Your task to perform on an android device: Show me popular games on the Play Store Image 0: 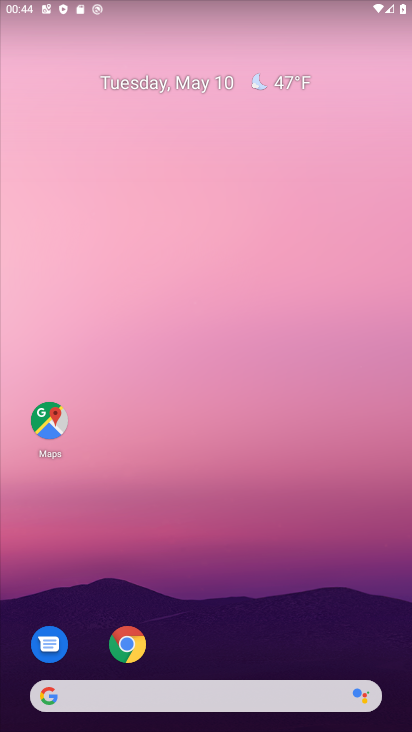
Step 0: drag from (254, 649) to (283, 329)
Your task to perform on an android device: Show me popular games on the Play Store Image 1: 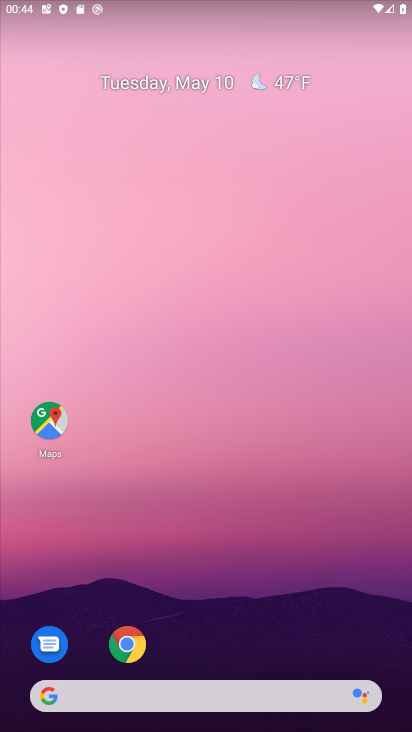
Step 1: drag from (183, 637) to (279, 286)
Your task to perform on an android device: Show me popular games on the Play Store Image 2: 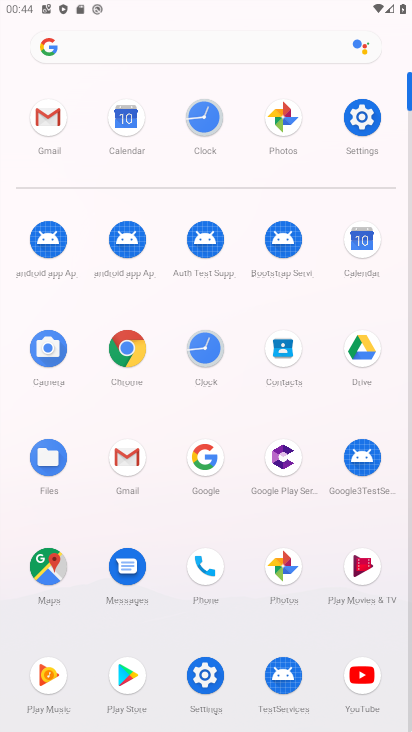
Step 2: click (132, 675)
Your task to perform on an android device: Show me popular games on the Play Store Image 3: 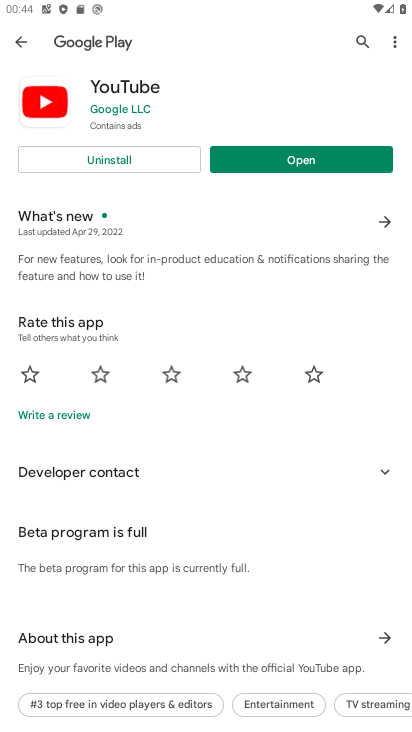
Step 3: click (21, 37)
Your task to perform on an android device: Show me popular games on the Play Store Image 4: 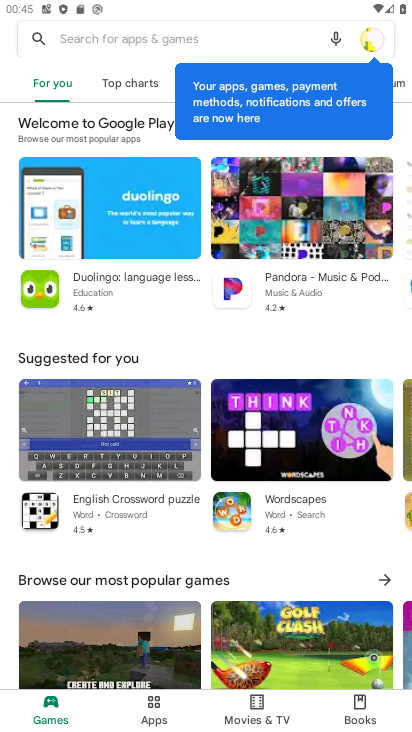
Step 4: click (390, 578)
Your task to perform on an android device: Show me popular games on the Play Store Image 5: 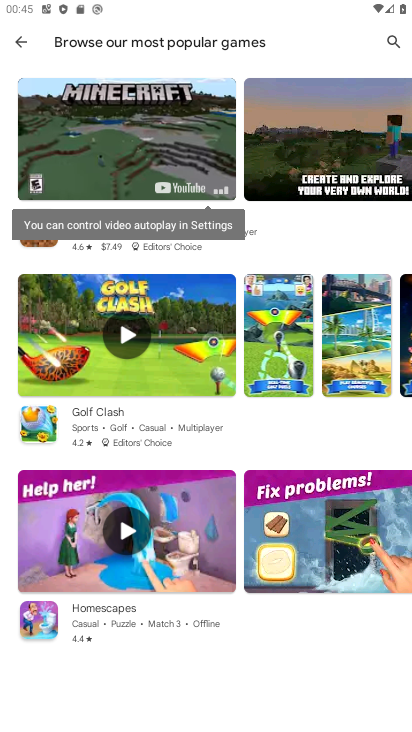
Step 5: task complete